Your task to perform on an android device: Open Chrome and go to the settings page Image 0: 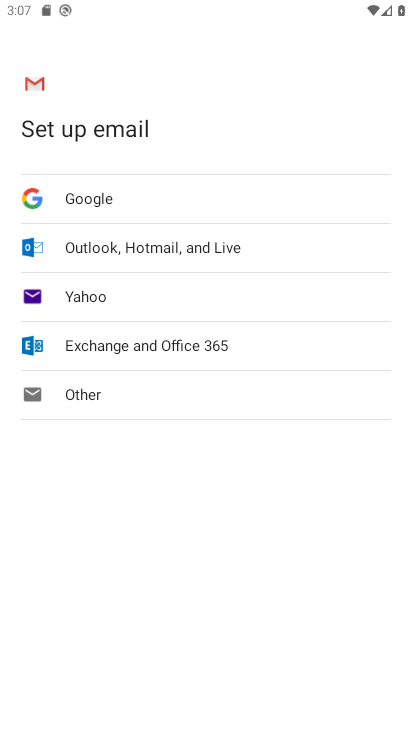
Step 0: press home button
Your task to perform on an android device: Open Chrome and go to the settings page Image 1: 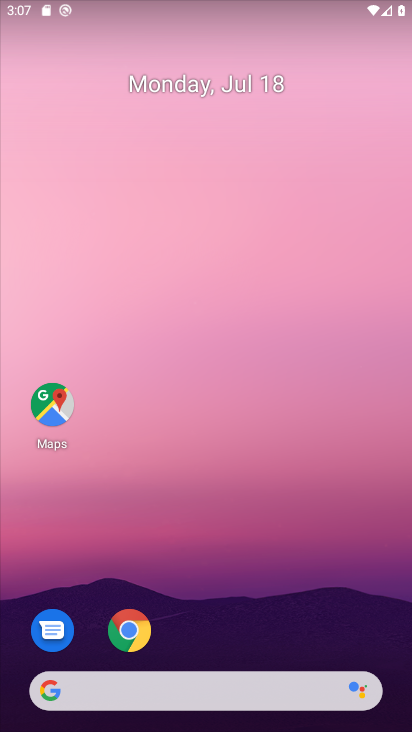
Step 1: drag from (284, 607) to (223, 128)
Your task to perform on an android device: Open Chrome and go to the settings page Image 2: 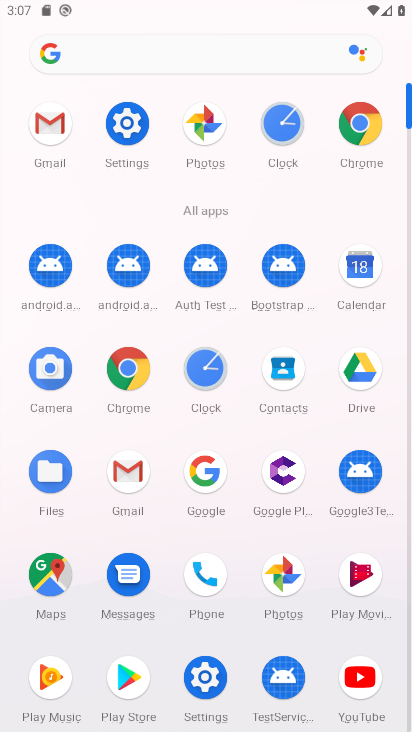
Step 2: click (362, 115)
Your task to perform on an android device: Open Chrome and go to the settings page Image 3: 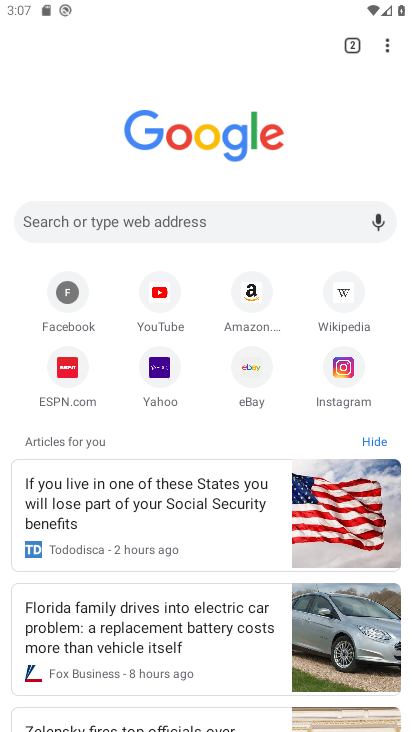
Step 3: click (387, 48)
Your task to perform on an android device: Open Chrome and go to the settings page Image 4: 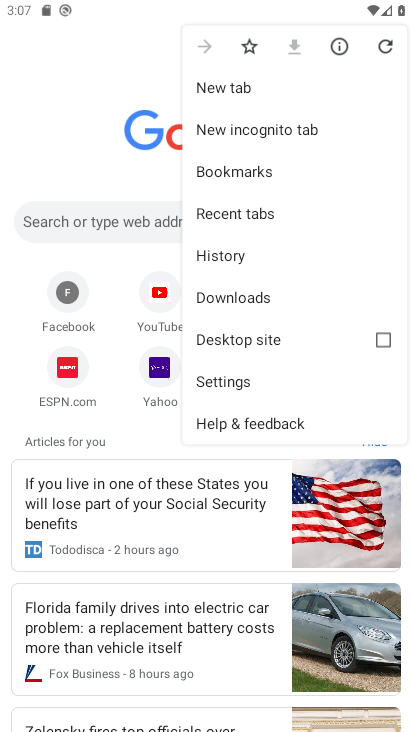
Step 4: click (254, 373)
Your task to perform on an android device: Open Chrome and go to the settings page Image 5: 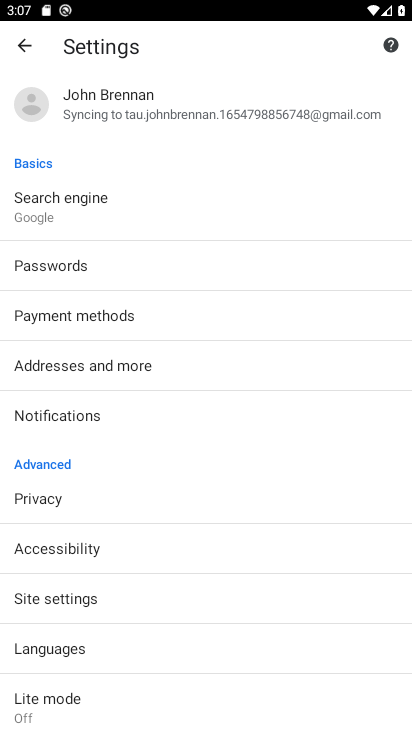
Step 5: task complete